Your task to perform on an android device: Open maps Image 0: 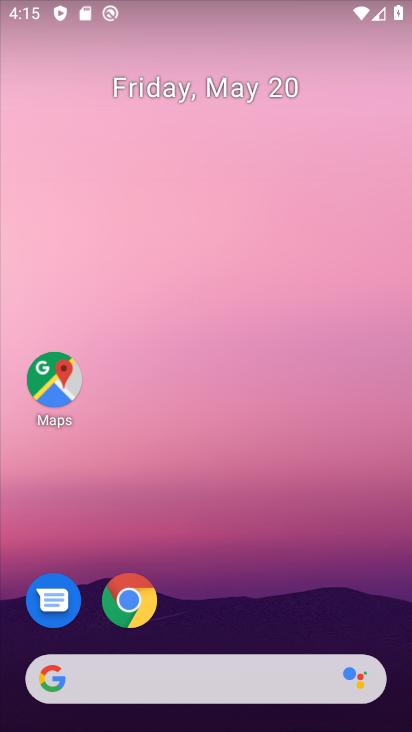
Step 0: click (55, 375)
Your task to perform on an android device: Open maps Image 1: 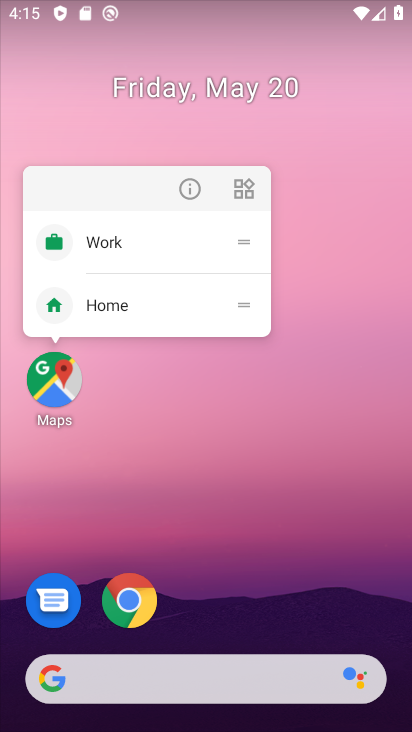
Step 1: click (55, 377)
Your task to perform on an android device: Open maps Image 2: 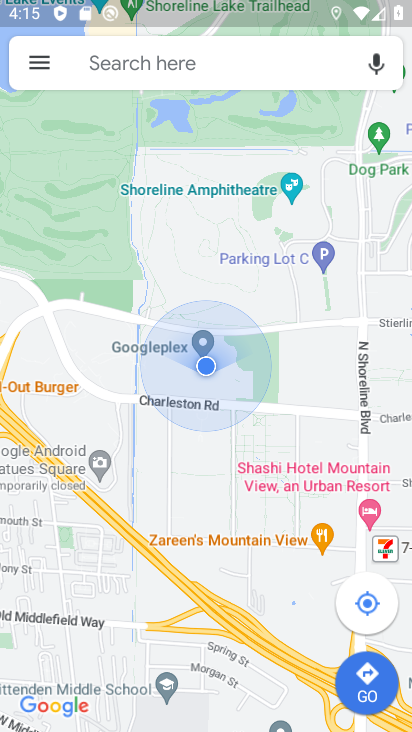
Step 2: task complete